Your task to perform on an android device: check out phone information Image 0: 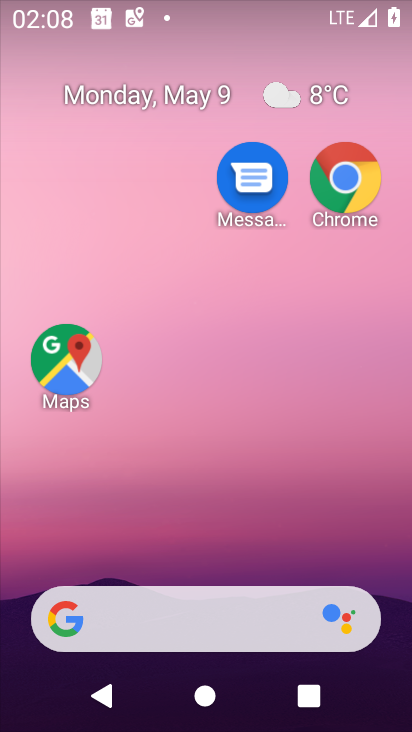
Step 0: drag from (203, 541) to (233, 20)
Your task to perform on an android device: check out phone information Image 1: 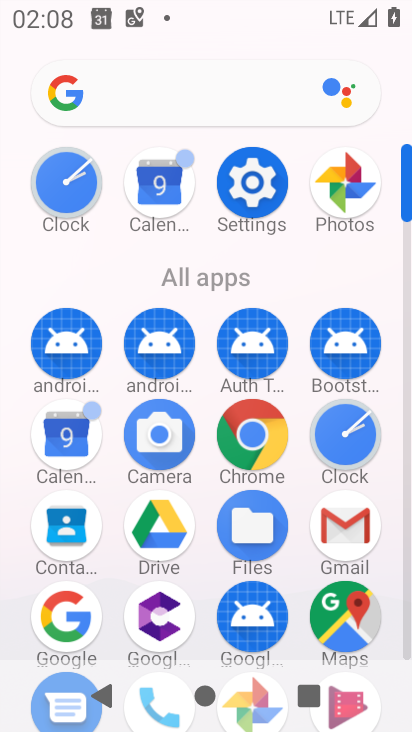
Step 1: drag from (314, 616) to (325, 295)
Your task to perform on an android device: check out phone information Image 2: 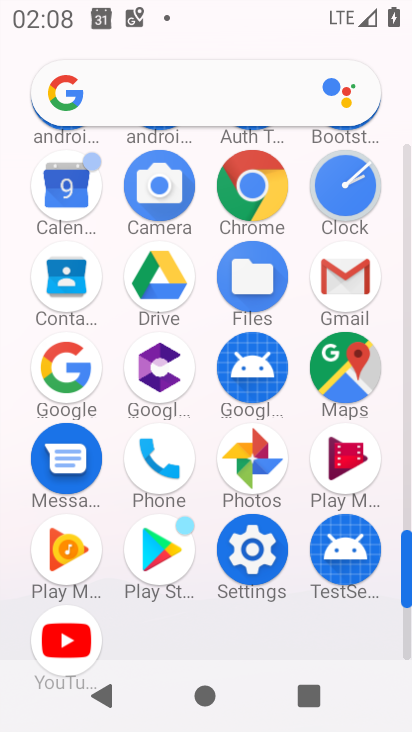
Step 2: click (245, 538)
Your task to perform on an android device: check out phone information Image 3: 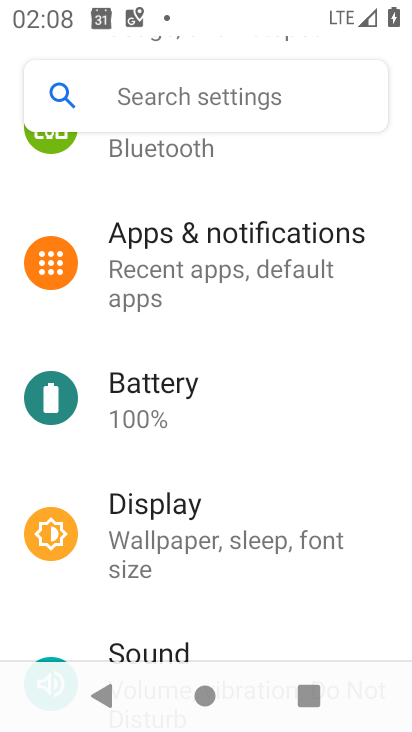
Step 3: drag from (268, 525) to (279, 128)
Your task to perform on an android device: check out phone information Image 4: 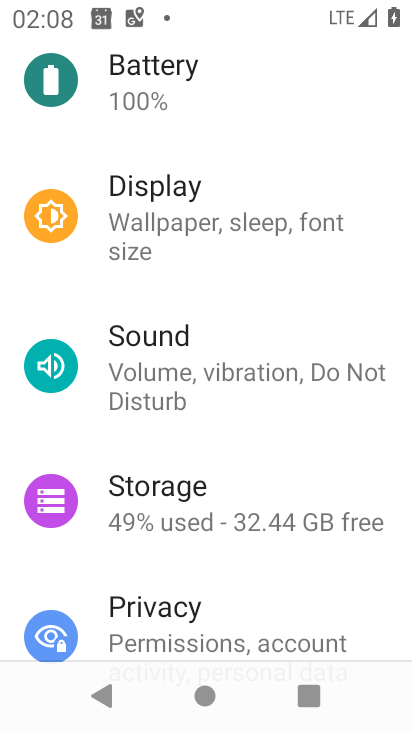
Step 4: drag from (254, 600) to (302, 53)
Your task to perform on an android device: check out phone information Image 5: 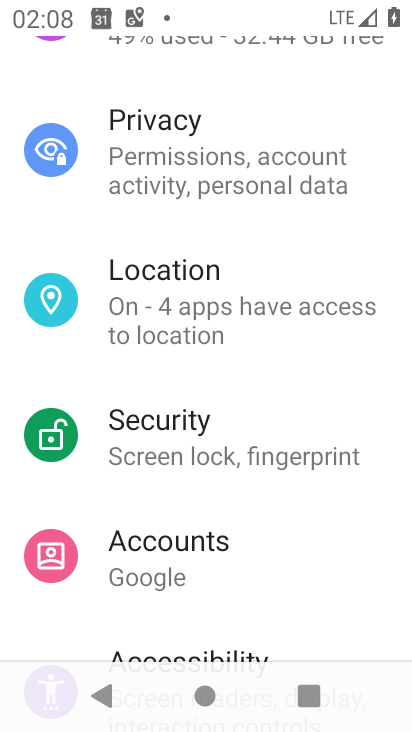
Step 5: drag from (255, 549) to (265, 25)
Your task to perform on an android device: check out phone information Image 6: 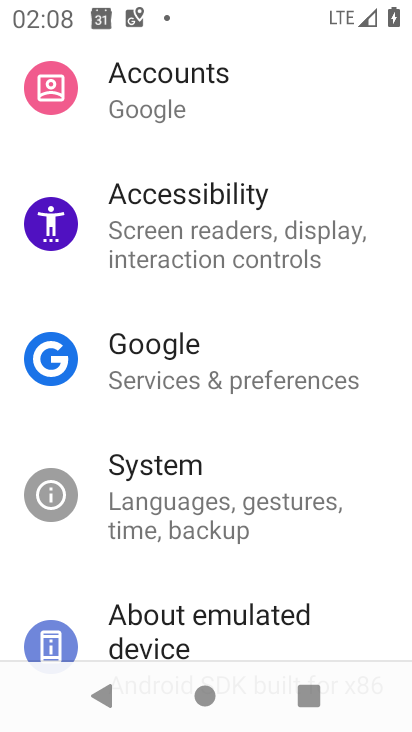
Step 6: click (263, 99)
Your task to perform on an android device: check out phone information Image 7: 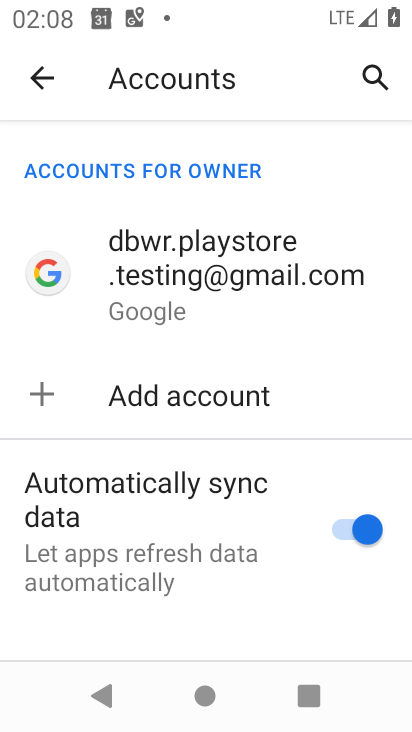
Step 7: click (47, 84)
Your task to perform on an android device: check out phone information Image 8: 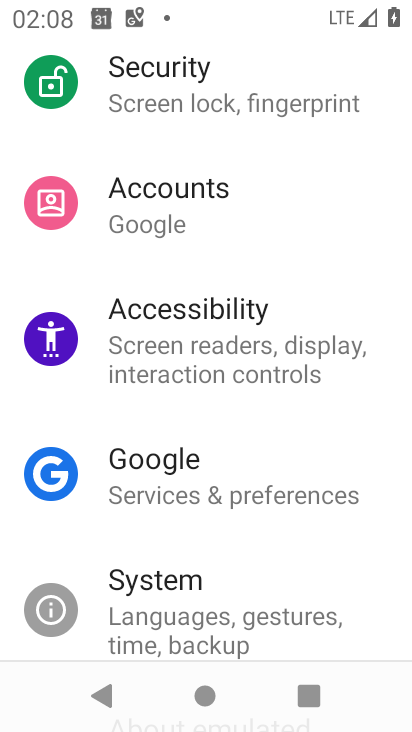
Step 8: drag from (222, 577) to (215, 28)
Your task to perform on an android device: check out phone information Image 9: 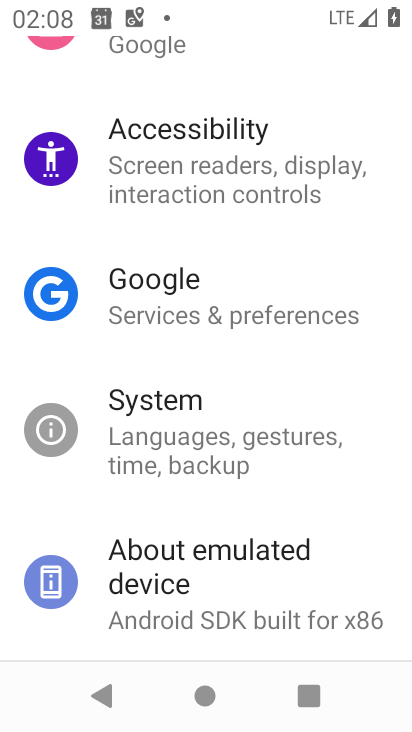
Step 9: click (193, 582)
Your task to perform on an android device: check out phone information Image 10: 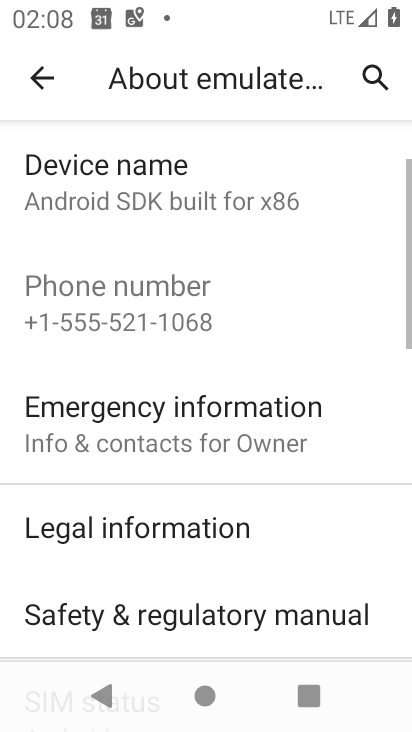
Step 10: task complete